Your task to perform on an android device: Open display settings Image 0: 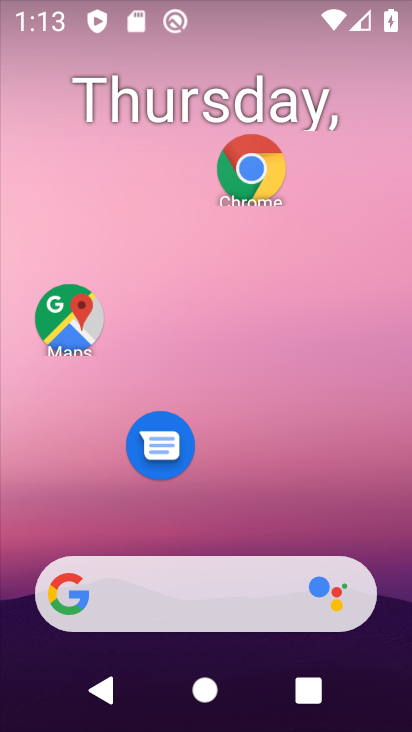
Step 0: drag from (250, 598) to (410, 21)
Your task to perform on an android device: Open display settings Image 1: 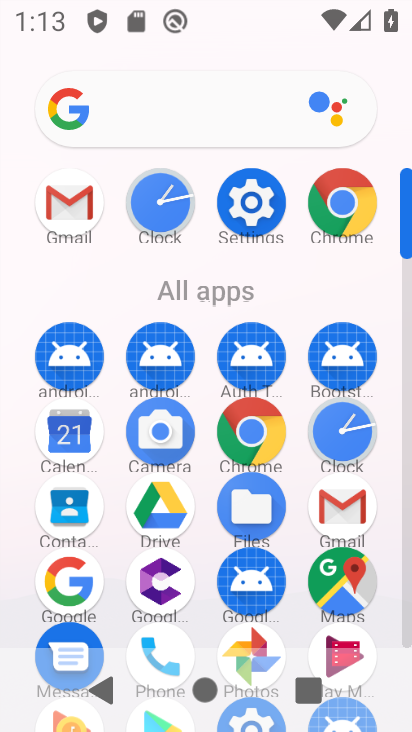
Step 1: click (252, 197)
Your task to perform on an android device: Open display settings Image 2: 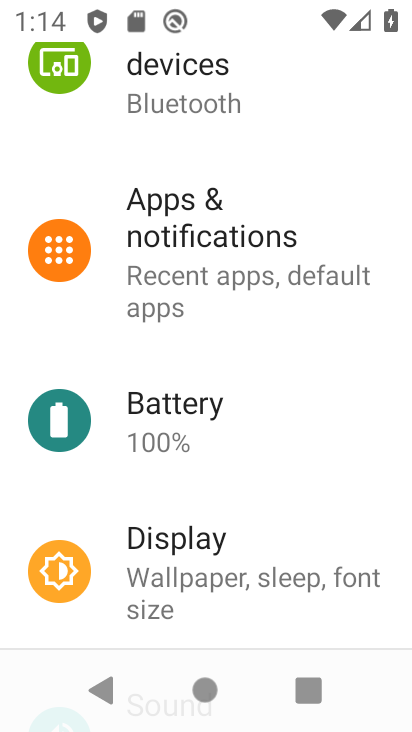
Step 2: click (180, 531)
Your task to perform on an android device: Open display settings Image 3: 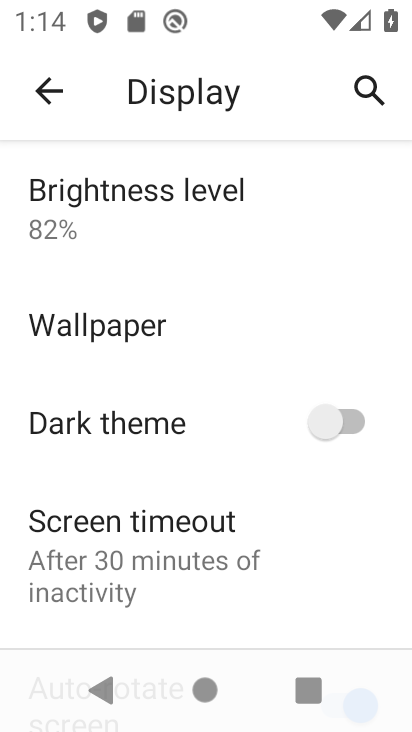
Step 3: task complete